Your task to perform on an android device: Search for the best selling coffee table on Crate & Barrel Image 0: 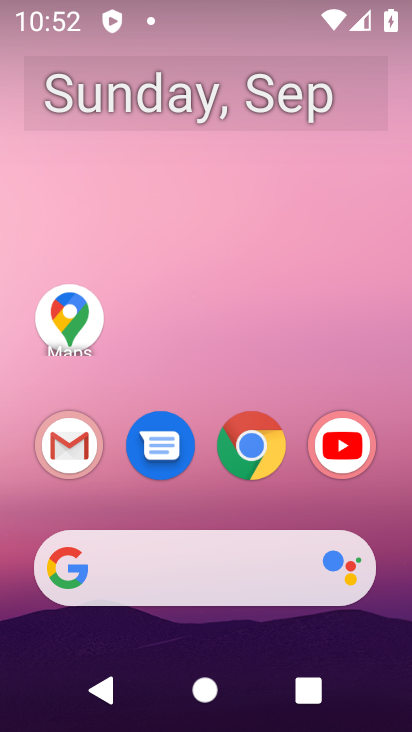
Step 0: click (321, 126)
Your task to perform on an android device: Search for the best selling coffee table on Crate & Barrel Image 1: 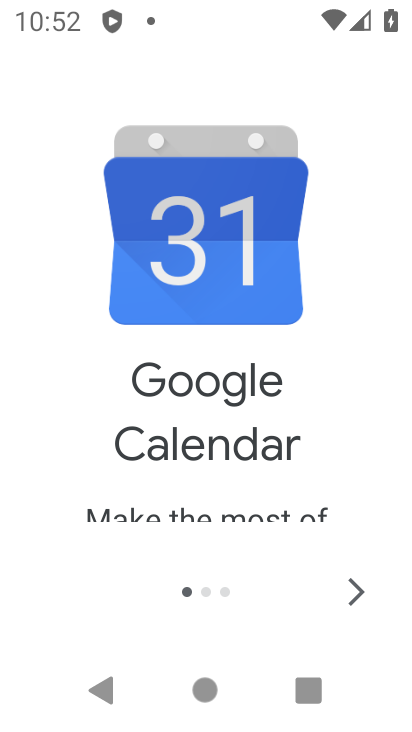
Step 1: press home button
Your task to perform on an android device: Search for the best selling coffee table on Crate & Barrel Image 2: 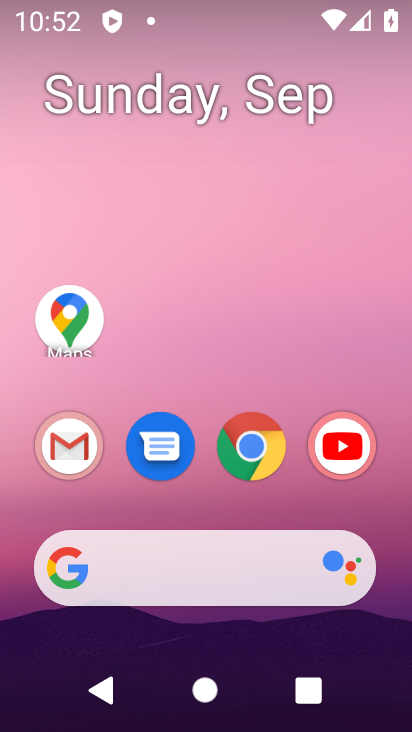
Step 2: click (202, 82)
Your task to perform on an android device: Search for the best selling coffee table on Crate & Barrel Image 3: 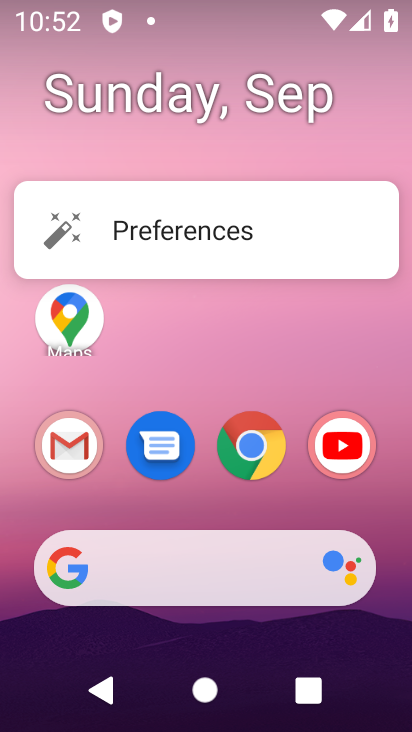
Step 3: click (294, 361)
Your task to perform on an android device: Search for the best selling coffee table on Crate & Barrel Image 4: 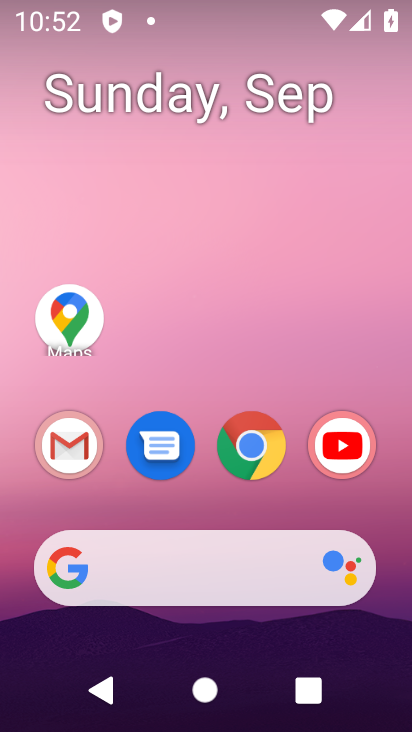
Step 4: drag from (205, 123) to (219, 91)
Your task to perform on an android device: Search for the best selling coffee table on Crate & Barrel Image 5: 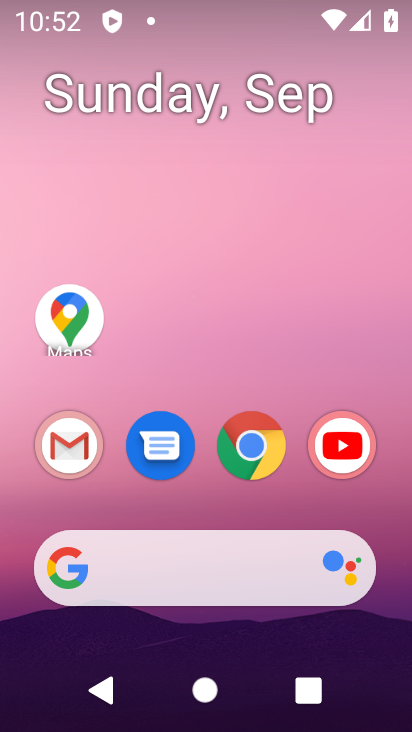
Step 5: drag from (276, 157) to (287, 82)
Your task to perform on an android device: Search for the best selling coffee table on Crate & Barrel Image 6: 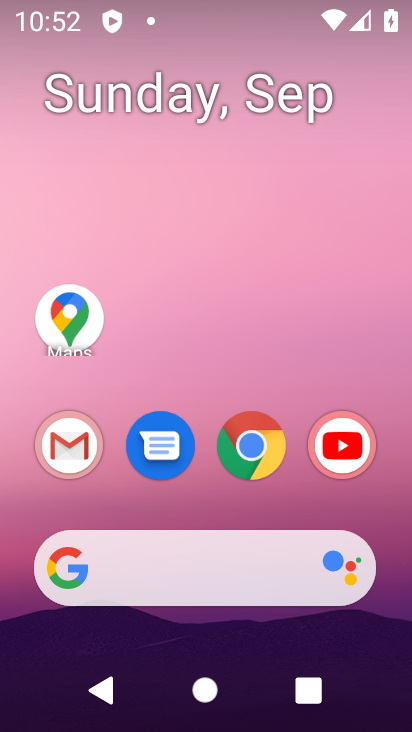
Step 6: drag from (132, 546) to (218, 3)
Your task to perform on an android device: Search for the best selling coffee table on Crate & Barrel Image 7: 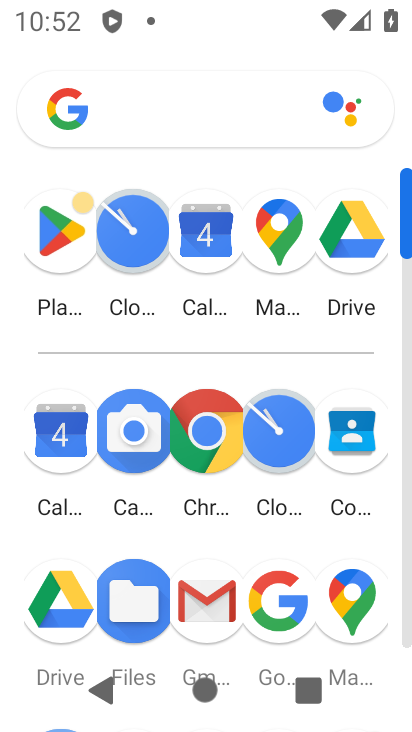
Step 7: click (204, 454)
Your task to perform on an android device: Search for the best selling coffee table on Crate & Barrel Image 8: 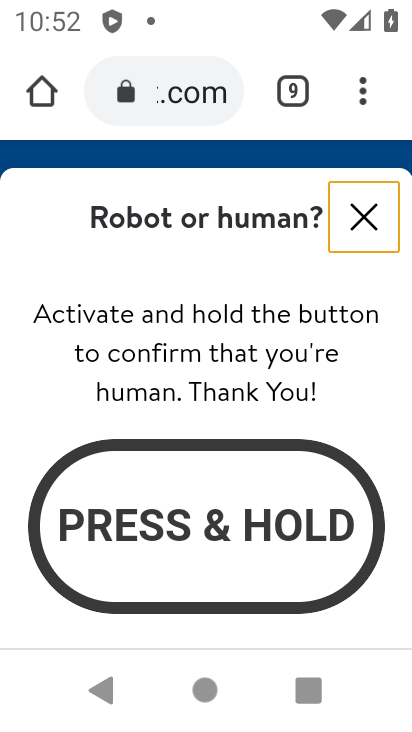
Step 8: click (213, 77)
Your task to perform on an android device: Search for the best selling coffee table on Crate & Barrel Image 9: 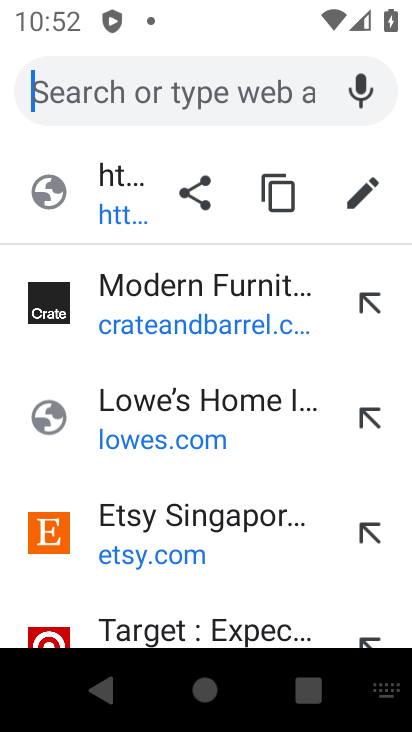
Step 9: press enter
Your task to perform on an android device: Search for the best selling coffee table on Crate & Barrel Image 10: 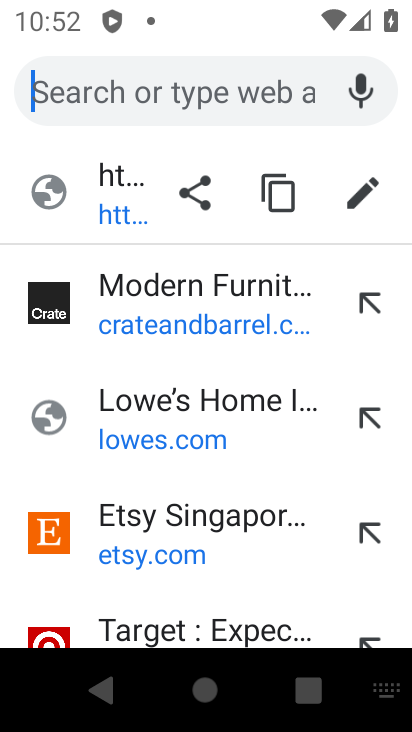
Step 10: type "Crate & Barrel"
Your task to perform on an android device: Search for the best selling coffee table on Crate & Barrel Image 11: 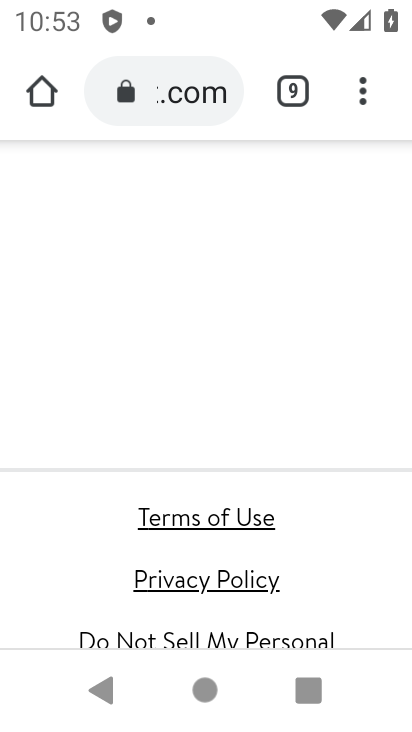
Step 11: drag from (246, 543) to (346, 113)
Your task to perform on an android device: Search for the best selling coffee table on Crate & Barrel Image 12: 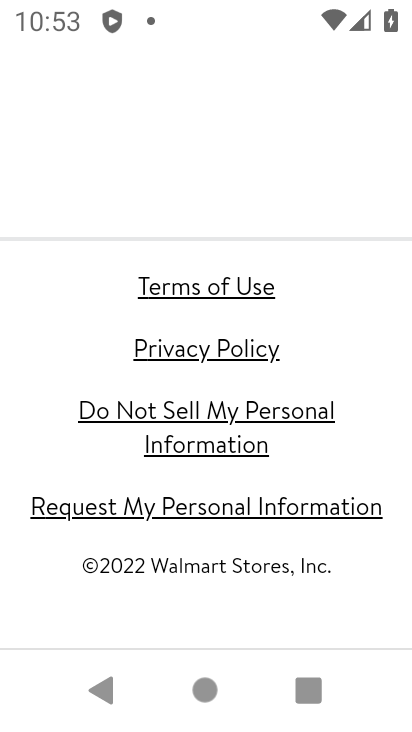
Step 12: drag from (257, 561) to (297, 204)
Your task to perform on an android device: Search for the best selling coffee table on Crate & Barrel Image 13: 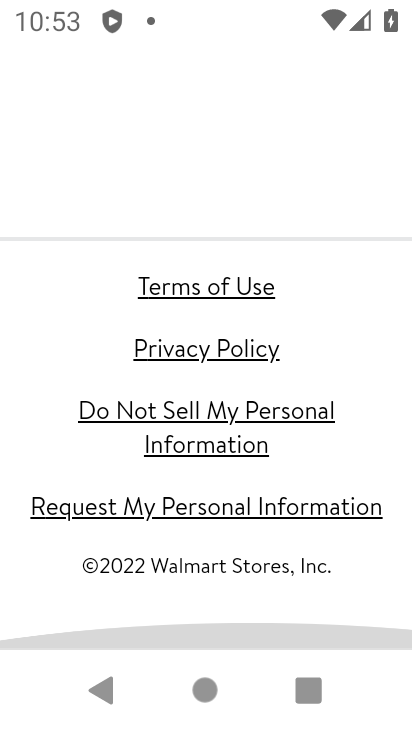
Step 13: click (241, 627)
Your task to perform on an android device: Search for the best selling coffee table on Crate & Barrel Image 14: 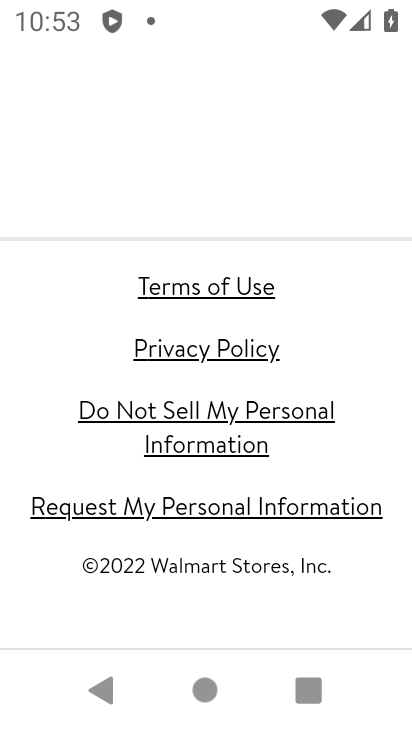
Step 14: drag from (259, 284) to (213, 612)
Your task to perform on an android device: Search for the best selling coffee table on Crate & Barrel Image 15: 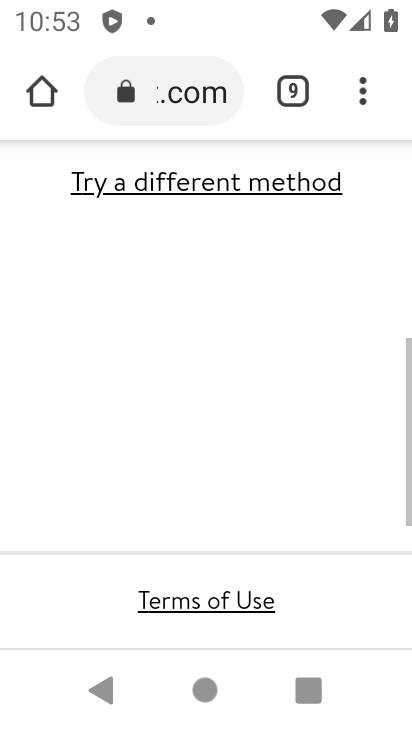
Step 15: drag from (257, 299) to (208, 632)
Your task to perform on an android device: Search for the best selling coffee table on Crate & Barrel Image 16: 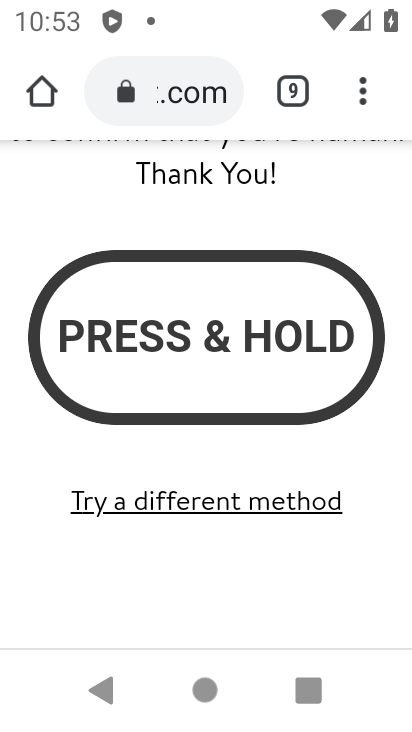
Step 16: drag from (252, 379) to (228, 642)
Your task to perform on an android device: Search for the best selling coffee table on Crate & Barrel Image 17: 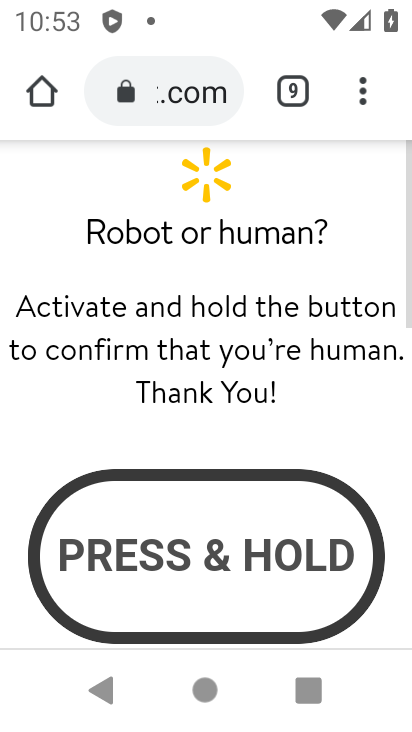
Step 17: drag from (204, 479) to (189, 89)
Your task to perform on an android device: Search for the best selling coffee table on Crate & Barrel Image 18: 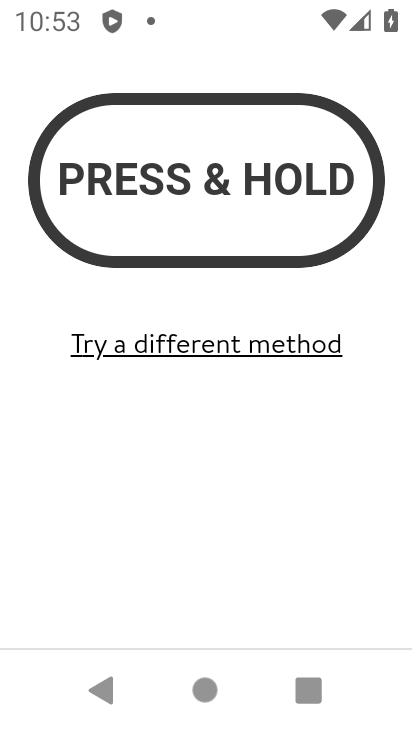
Step 18: click (237, 529)
Your task to perform on an android device: Search for the best selling coffee table on Crate & Barrel Image 19: 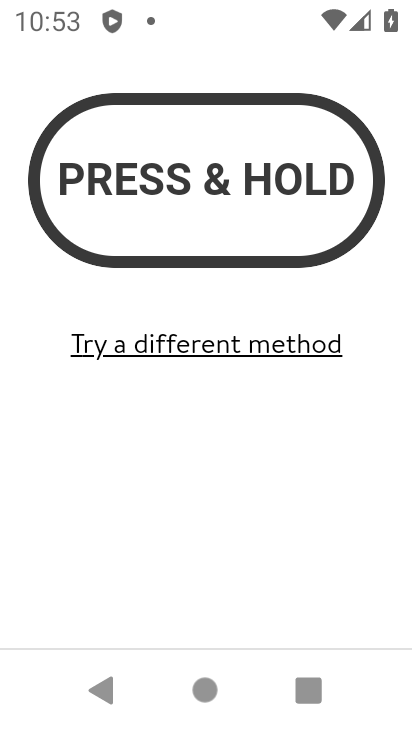
Step 19: press back button
Your task to perform on an android device: Search for the best selling coffee table on Crate & Barrel Image 20: 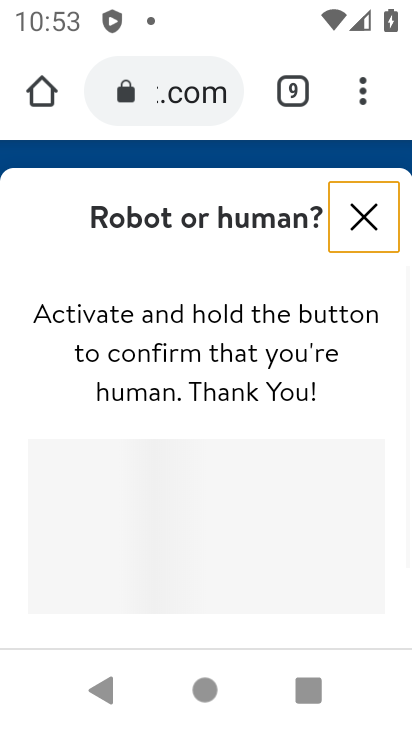
Step 20: click (145, 83)
Your task to perform on an android device: Search for the best selling coffee table on Crate & Barrel Image 21: 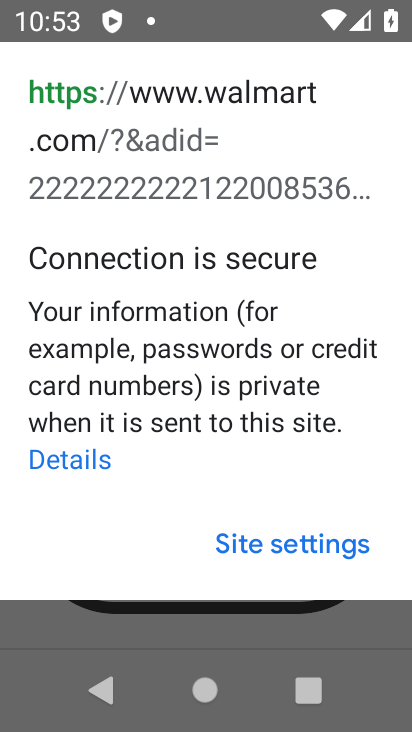
Step 21: press back button
Your task to perform on an android device: Search for the best selling coffee table on Crate & Barrel Image 22: 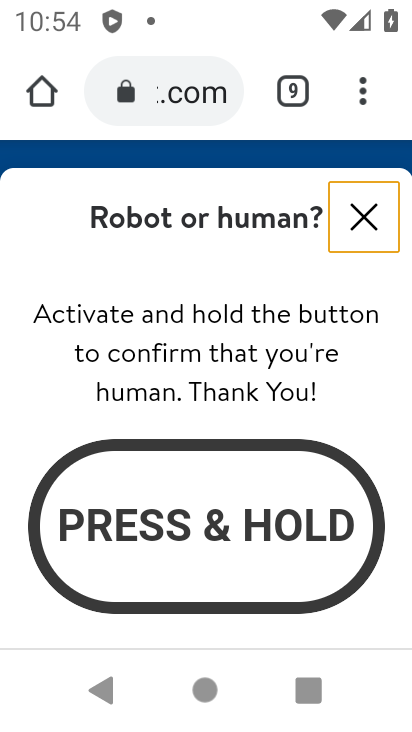
Step 22: click (135, 52)
Your task to perform on an android device: Search for the best selling coffee table on Crate & Barrel Image 23: 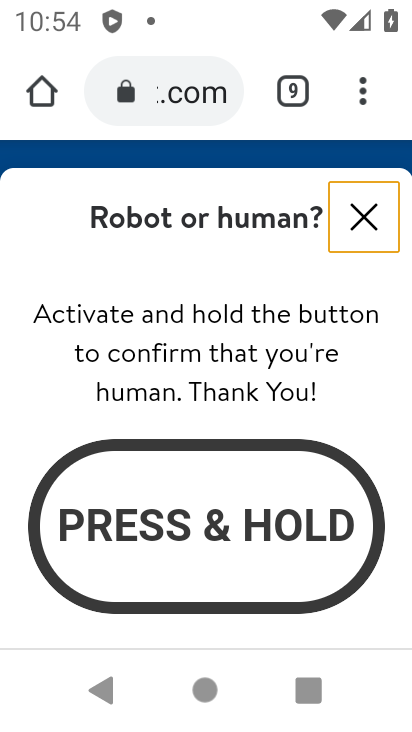
Step 23: click (144, 79)
Your task to perform on an android device: Search for the best selling coffee table on Crate & Barrel Image 24: 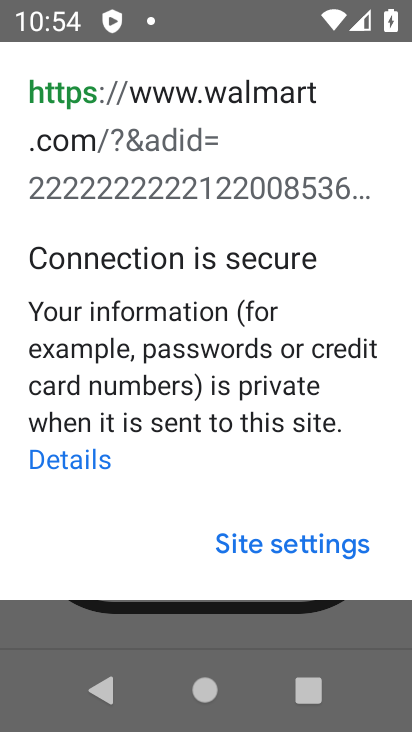
Step 24: press back button
Your task to perform on an android device: Search for the best selling coffee table on Crate & Barrel Image 25: 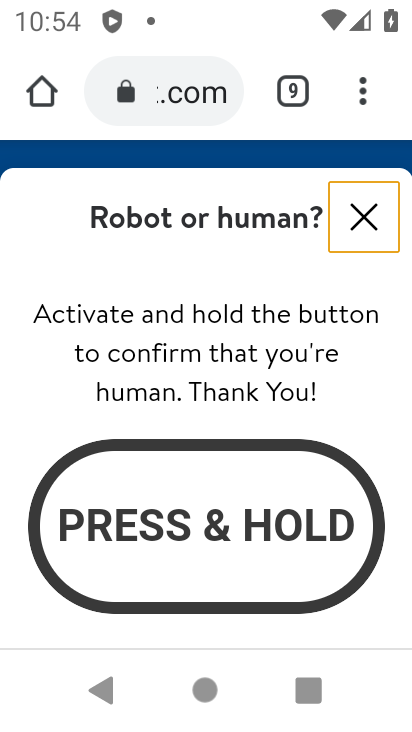
Step 25: click (167, 96)
Your task to perform on an android device: Search for the best selling coffee table on Crate & Barrel Image 26: 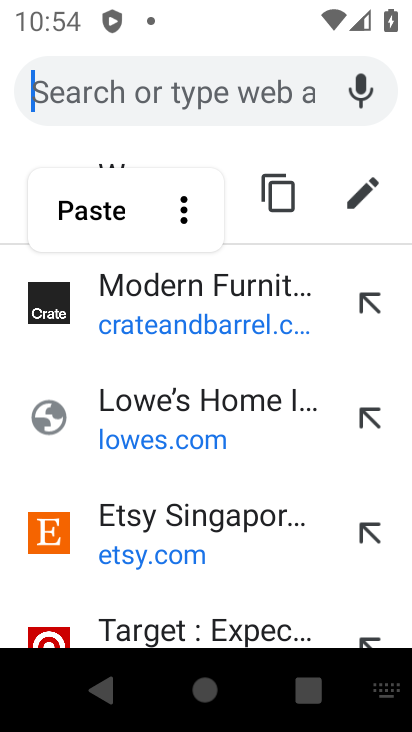
Step 26: press enter
Your task to perform on an android device: Search for the best selling coffee table on Crate & Barrel Image 27: 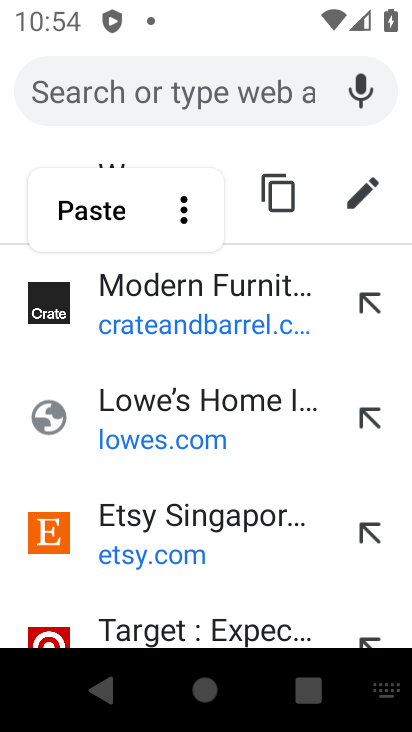
Step 27: type "Crate & Barrel"
Your task to perform on an android device: Search for the best selling coffee table on Crate & Barrel Image 28: 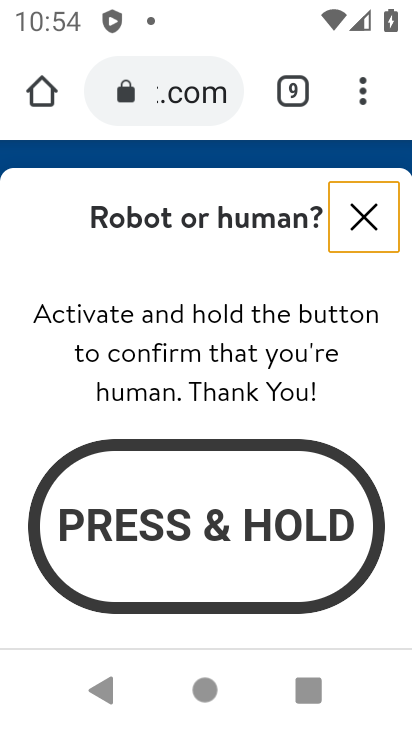
Step 28: click (374, 220)
Your task to perform on an android device: Search for the best selling coffee table on Crate & Barrel Image 29: 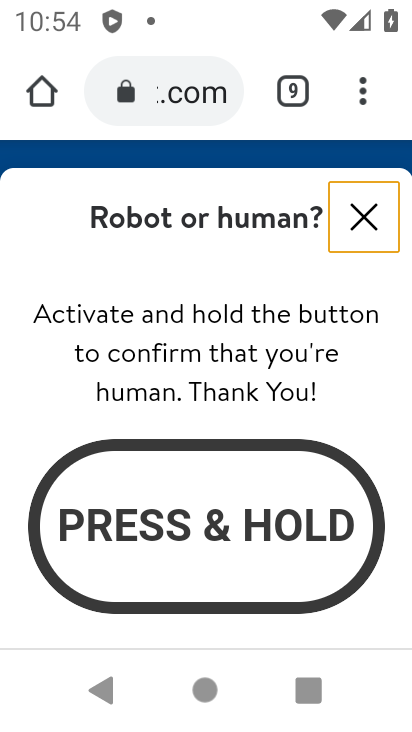
Step 29: click (368, 220)
Your task to perform on an android device: Search for the best selling coffee table on Crate & Barrel Image 30: 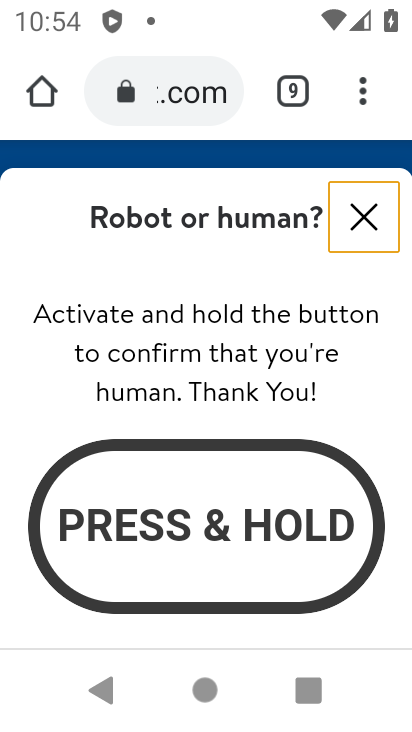
Step 30: click (376, 221)
Your task to perform on an android device: Search for the best selling coffee table on Crate & Barrel Image 31: 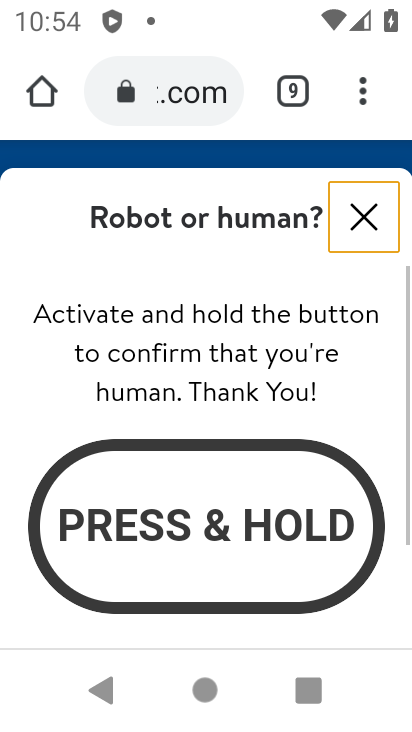
Step 31: click (368, 211)
Your task to perform on an android device: Search for the best selling coffee table on Crate & Barrel Image 32: 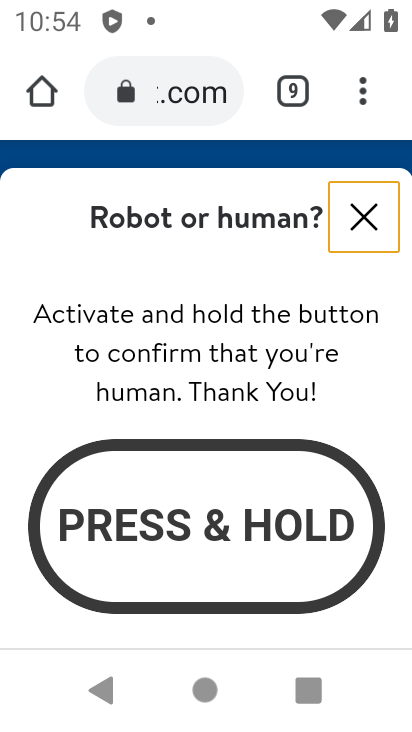
Step 32: click (354, 217)
Your task to perform on an android device: Search for the best selling coffee table on Crate & Barrel Image 33: 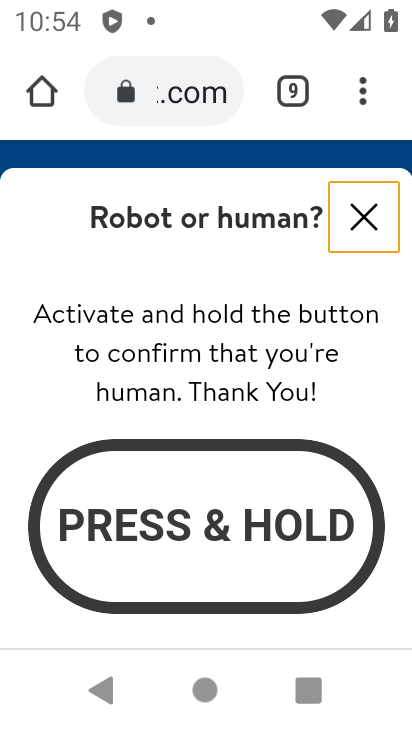
Step 33: click (354, 216)
Your task to perform on an android device: Search for the best selling coffee table on Crate & Barrel Image 34: 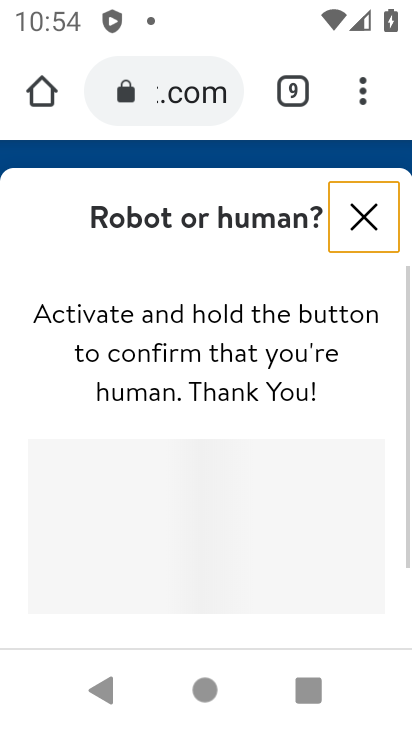
Step 34: click (356, 229)
Your task to perform on an android device: Search for the best selling coffee table on Crate & Barrel Image 35: 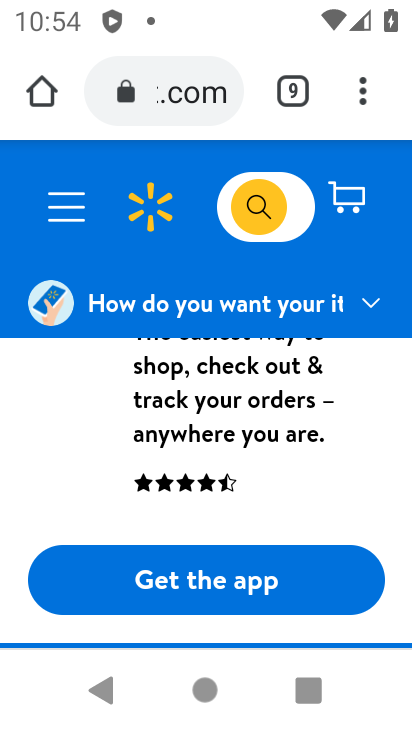
Step 35: click (349, 105)
Your task to perform on an android device: Search for the best selling coffee table on Crate & Barrel Image 36: 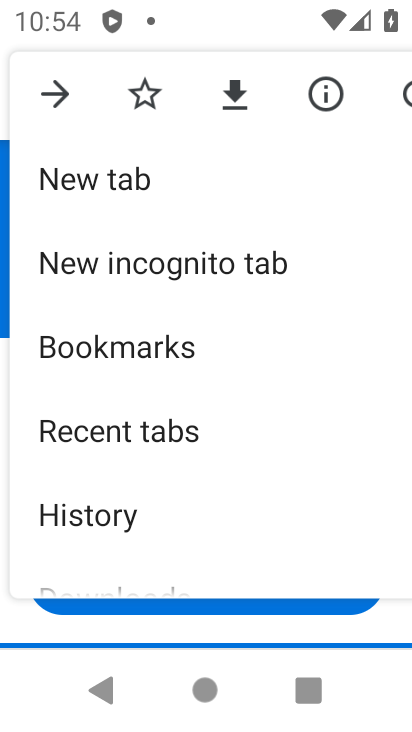
Step 36: click (113, 190)
Your task to perform on an android device: Search for the best selling coffee table on Crate & Barrel Image 37: 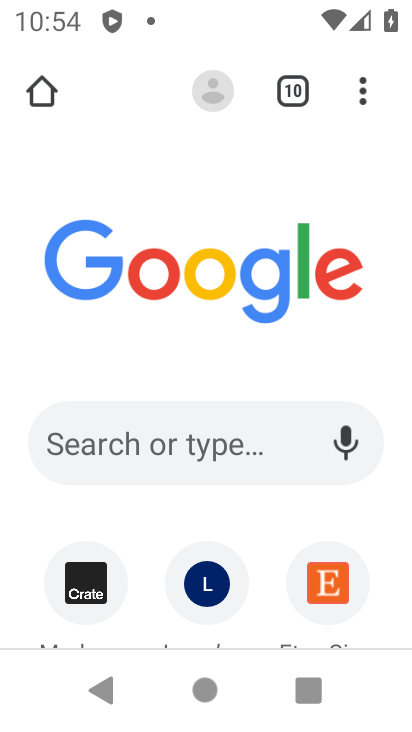
Step 37: click (124, 436)
Your task to perform on an android device: Search for the best selling coffee table on Crate & Barrel Image 38: 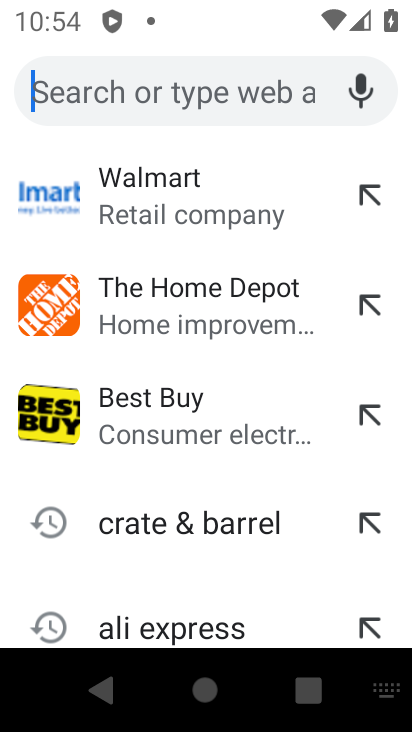
Step 38: click (161, 537)
Your task to perform on an android device: Search for the best selling coffee table on Crate & Barrel Image 39: 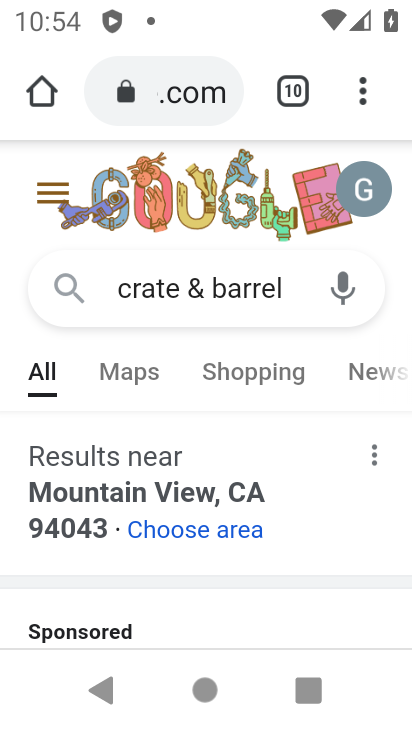
Step 39: drag from (164, 543) to (228, 228)
Your task to perform on an android device: Search for the best selling coffee table on Crate & Barrel Image 40: 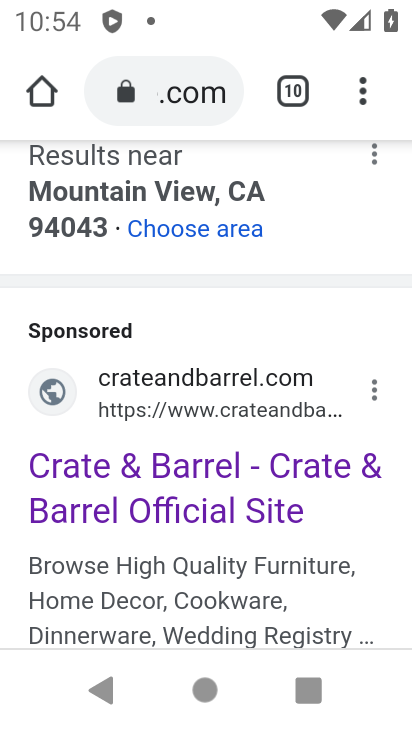
Step 40: click (150, 403)
Your task to perform on an android device: Search for the best selling coffee table on Crate & Barrel Image 41: 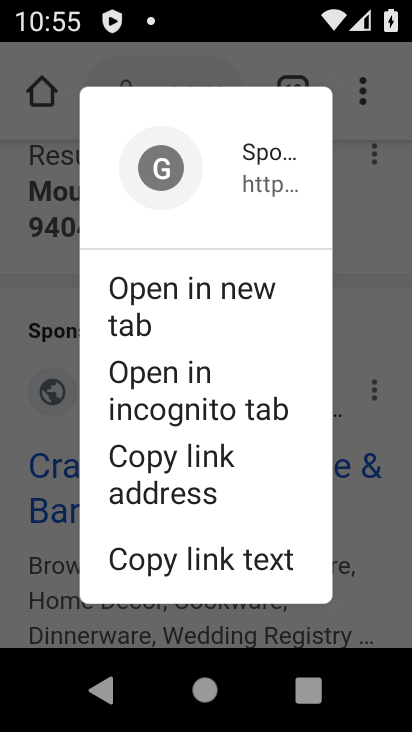
Step 41: click (176, 293)
Your task to perform on an android device: Search for the best selling coffee table on Crate & Barrel Image 42: 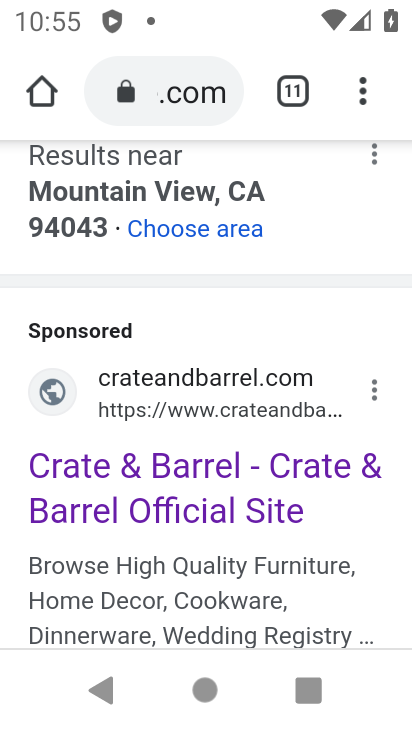
Step 42: drag from (203, 545) to (276, 292)
Your task to perform on an android device: Search for the best selling coffee table on Crate & Barrel Image 43: 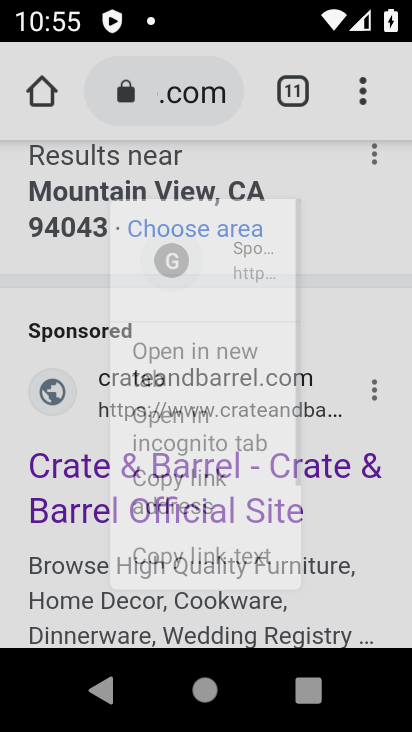
Step 43: click (390, 392)
Your task to perform on an android device: Search for the best selling coffee table on Crate & Barrel Image 44: 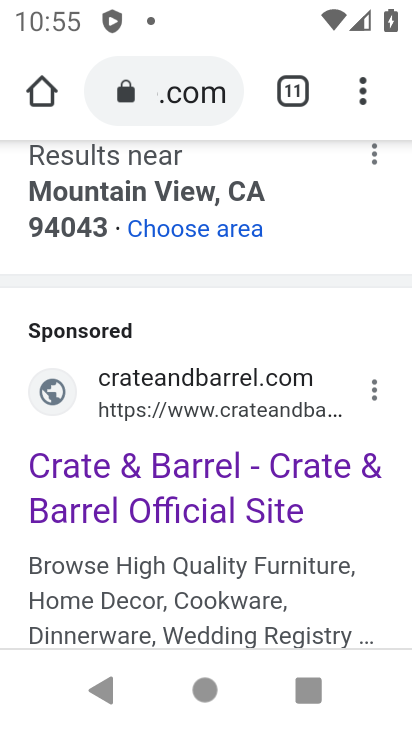
Step 44: click (245, 466)
Your task to perform on an android device: Search for the best selling coffee table on Crate & Barrel Image 45: 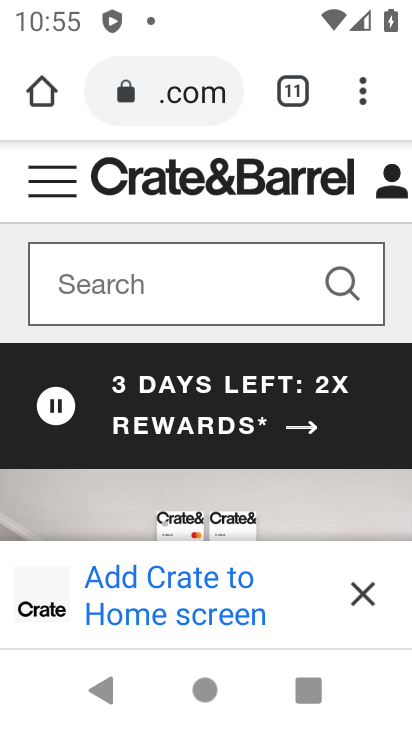
Step 45: click (370, 599)
Your task to perform on an android device: Search for the best selling coffee table on Crate & Barrel Image 46: 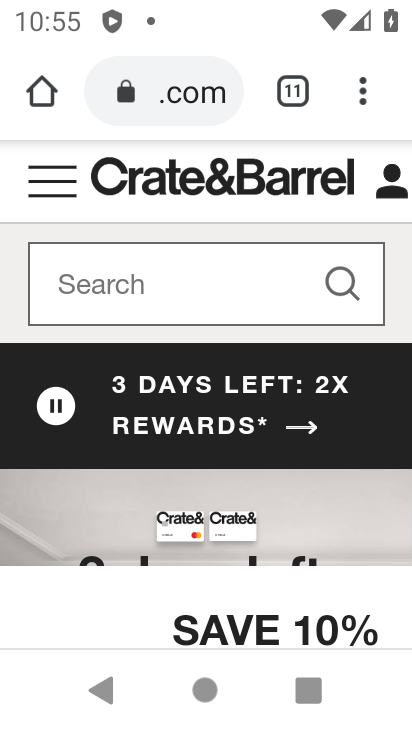
Step 46: click (143, 278)
Your task to perform on an android device: Search for the best selling coffee table on Crate & Barrel Image 47: 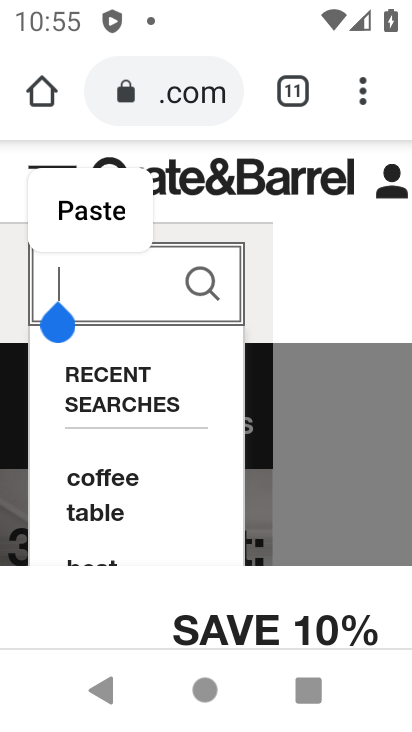
Step 47: press enter
Your task to perform on an android device: Search for the best selling coffee table on Crate & Barrel Image 48: 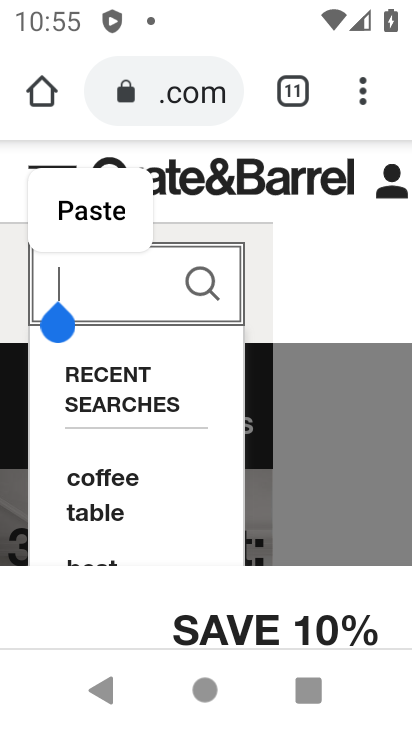
Step 48: type "best selling coffee table"
Your task to perform on an android device: Search for the best selling coffee table on Crate & Barrel Image 49: 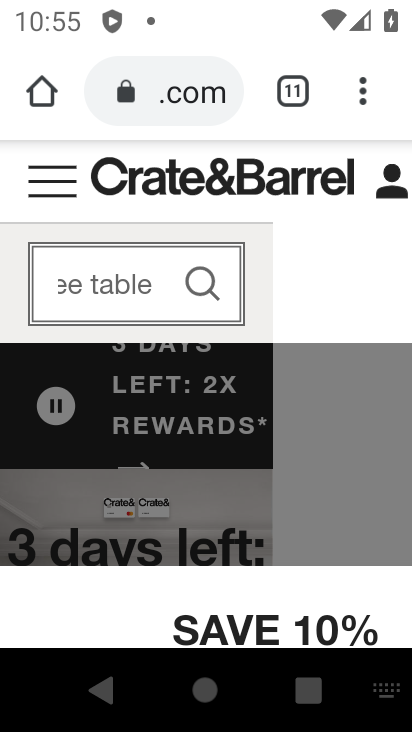
Step 49: press enter
Your task to perform on an android device: Search for the best selling coffee table on Crate & Barrel Image 50: 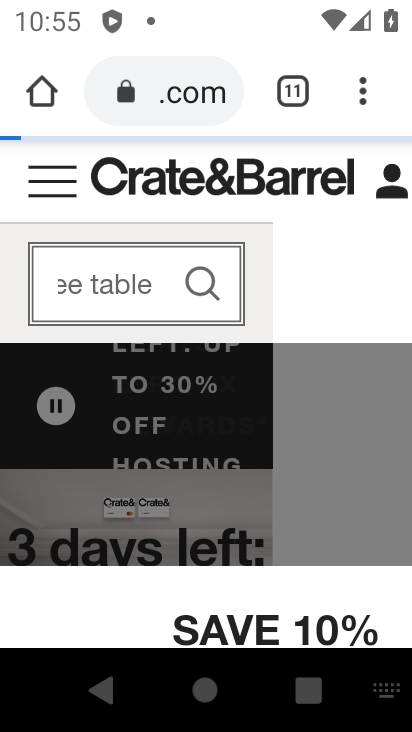
Step 50: press enter
Your task to perform on an android device: Search for the best selling coffee table on Crate & Barrel Image 51: 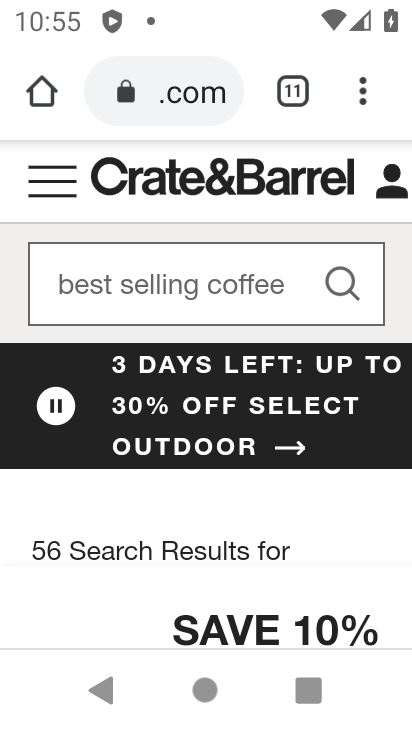
Step 51: drag from (288, 357) to (334, 167)
Your task to perform on an android device: Search for the best selling coffee table on Crate & Barrel Image 52: 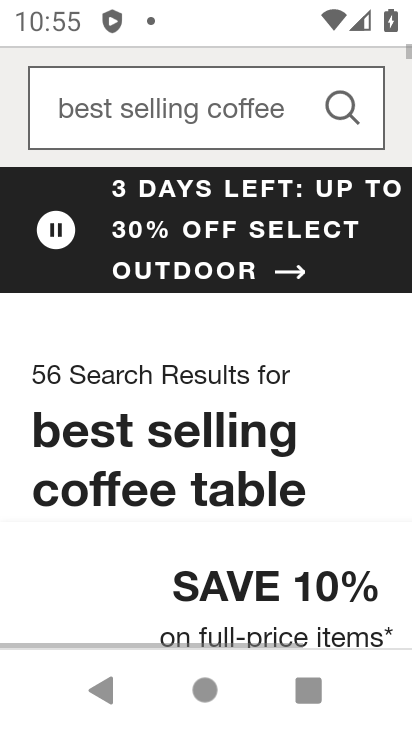
Step 52: drag from (245, 541) to (197, 570)
Your task to perform on an android device: Search for the best selling coffee table on Crate & Barrel Image 53: 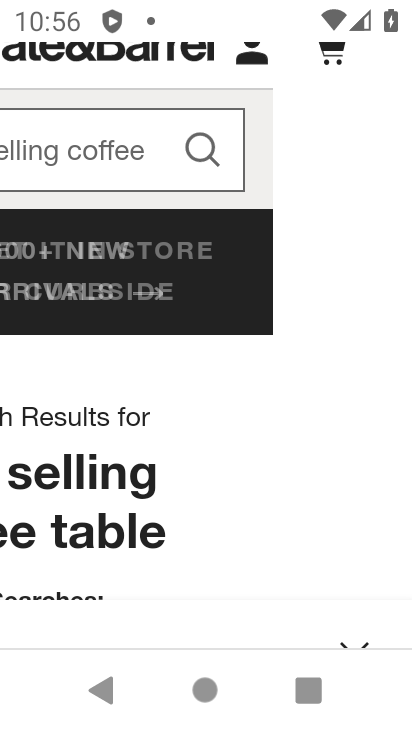
Step 53: click (251, 602)
Your task to perform on an android device: Search for the best selling coffee table on Crate & Barrel Image 54: 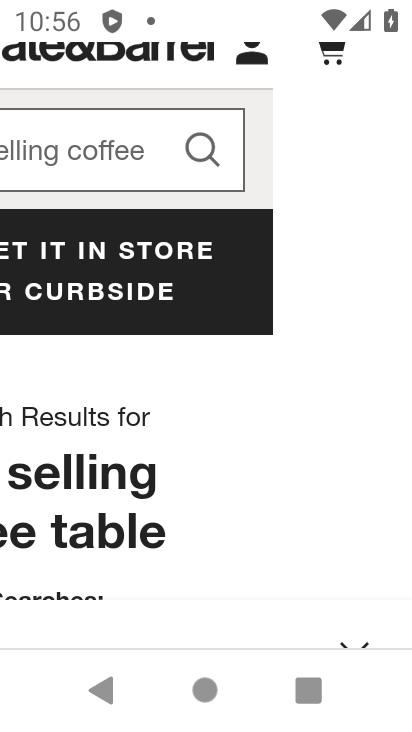
Step 54: click (409, 427)
Your task to perform on an android device: Search for the best selling coffee table on Crate & Barrel Image 55: 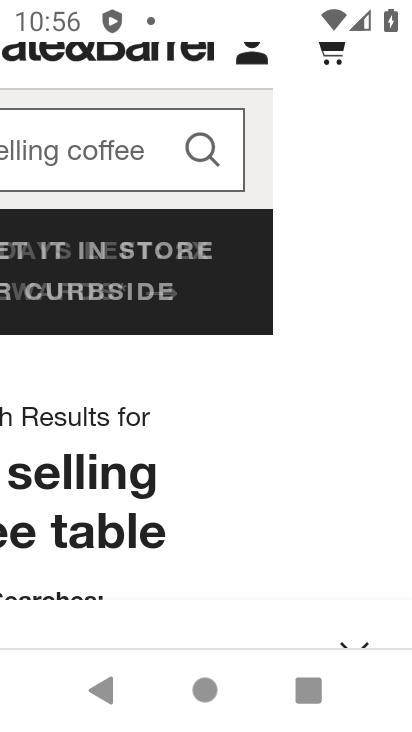
Step 55: click (392, 416)
Your task to perform on an android device: Search for the best selling coffee table on Crate & Barrel Image 56: 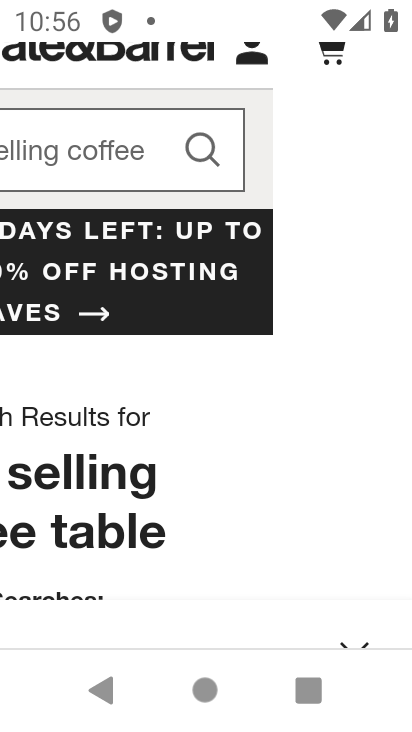
Step 56: click (279, 397)
Your task to perform on an android device: Search for the best selling coffee table on Crate & Barrel Image 57: 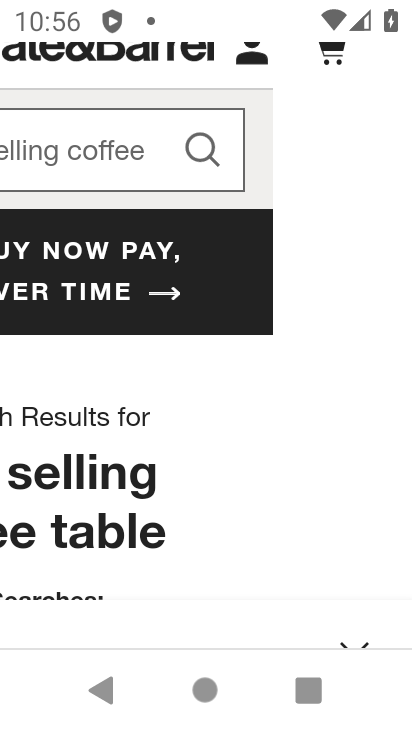
Step 57: press enter
Your task to perform on an android device: Search for the best selling coffee table on Crate & Barrel Image 58: 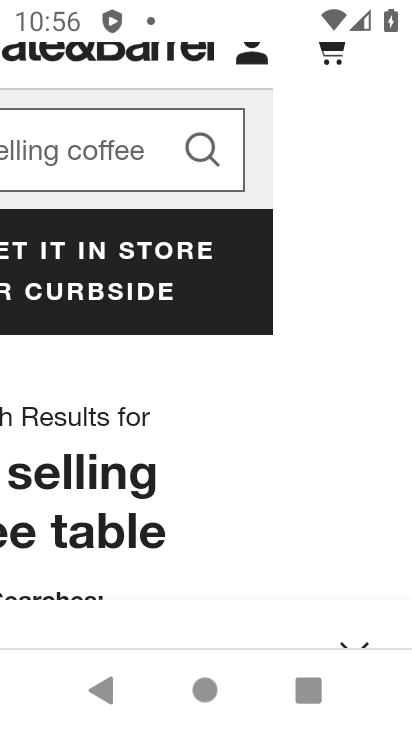
Step 58: press enter
Your task to perform on an android device: Search for the best selling coffee table on Crate & Barrel Image 59: 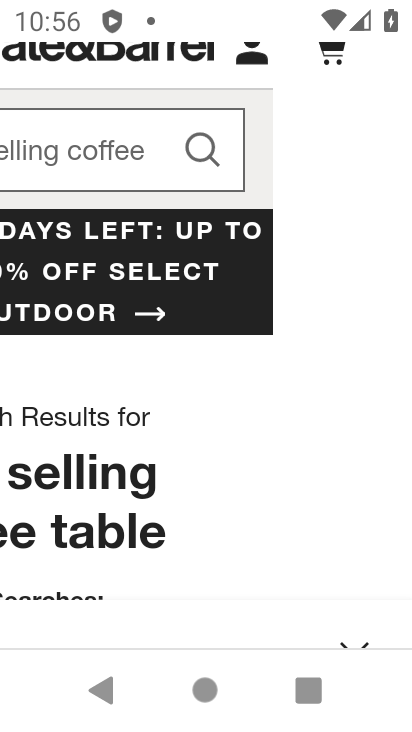
Step 59: click (397, 313)
Your task to perform on an android device: Search for the best selling coffee table on Crate & Barrel Image 60: 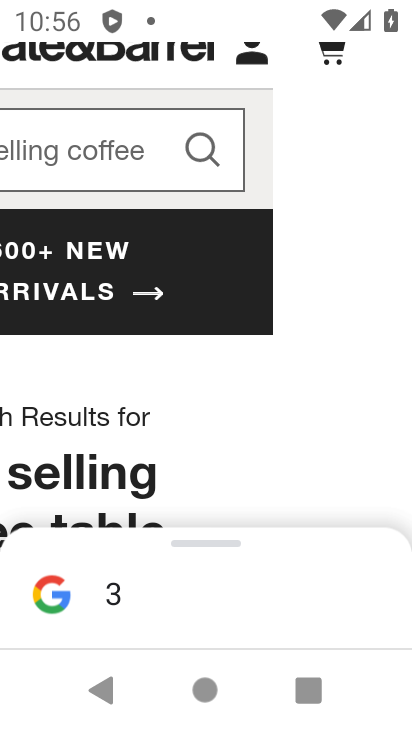
Step 60: task complete